Your task to perform on an android device: What's the weather today? Image 0: 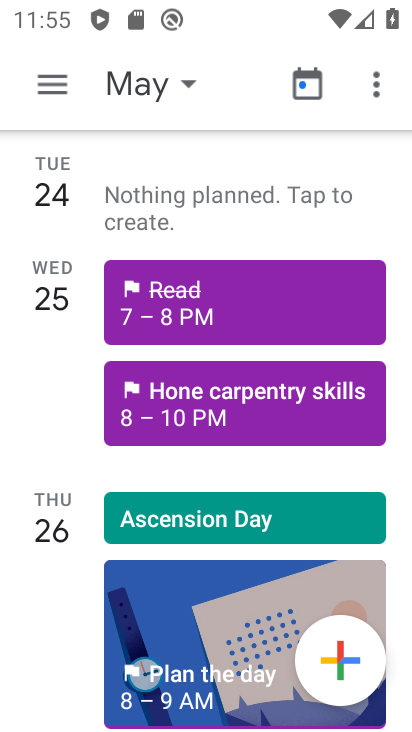
Step 0: press home button
Your task to perform on an android device: What's the weather today? Image 1: 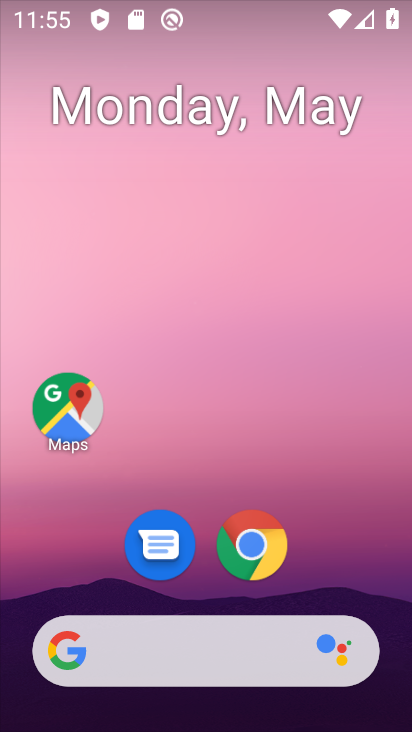
Step 1: click (243, 643)
Your task to perform on an android device: What's the weather today? Image 2: 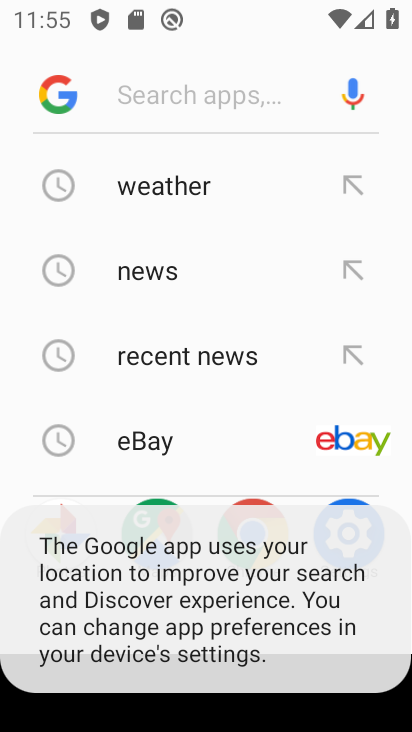
Step 2: click (175, 202)
Your task to perform on an android device: What's the weather today? Image 3: 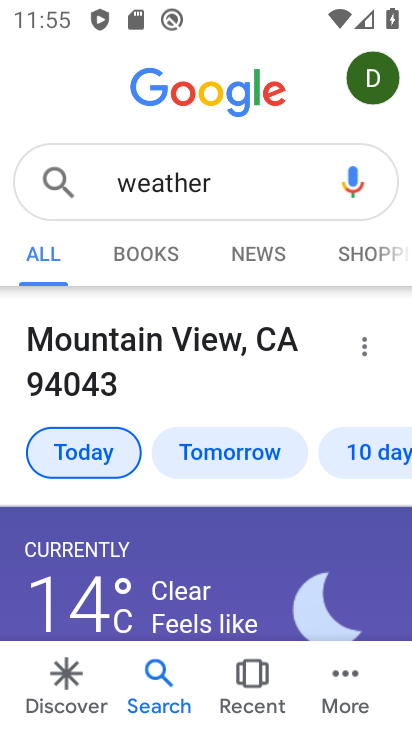
Step 3: task complete